Your task to perform on an android device: Open Amazon Image 0: 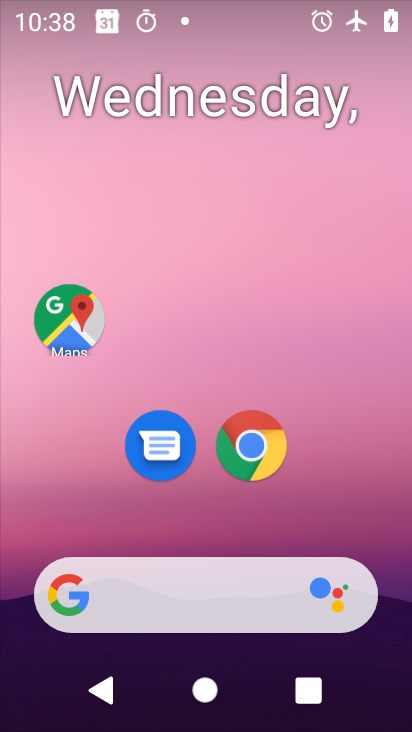
Step 0: drag from (319, 530) to (331, 15)
Your task to perform on an android device: Open Amazon Image 1: 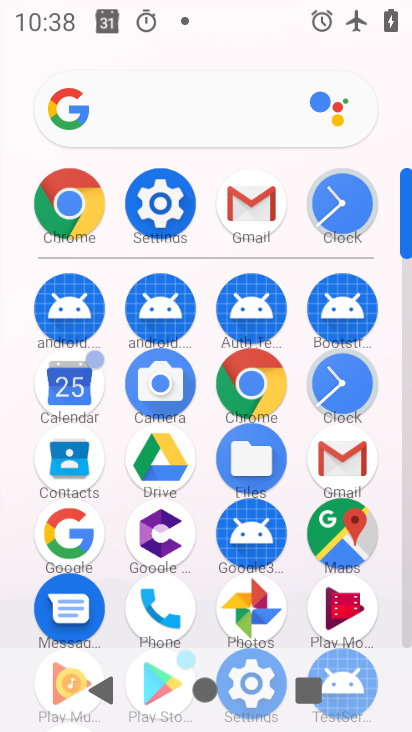
Step 1: click (261, 383)
Your task to perform on an android device: Open Amazon Image 2: 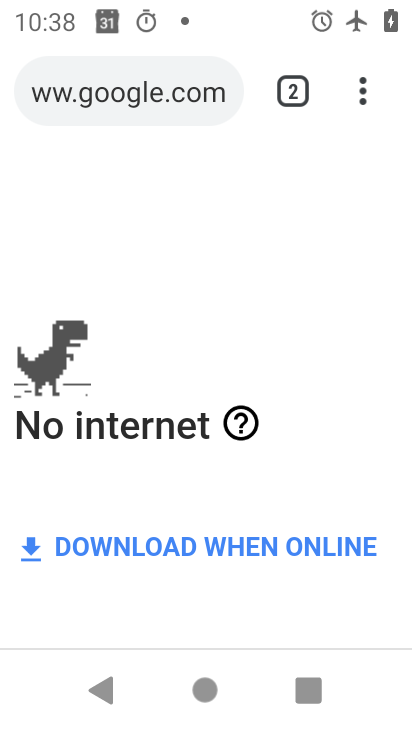
Step 2: click (143, 91)
Your task to perform on an android device: Open Amazon Image 3: 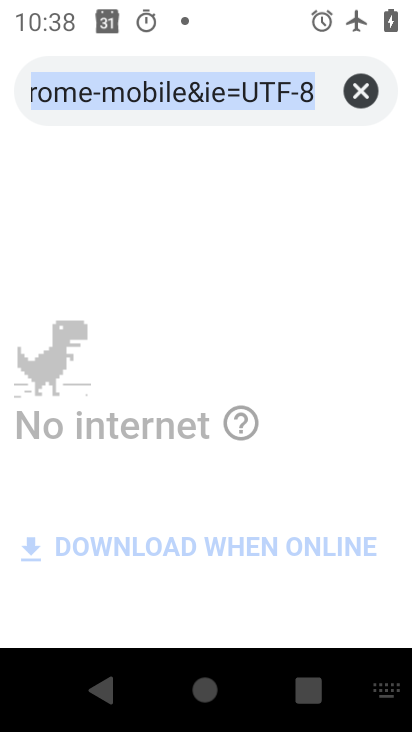
Step 3: click (377, 85)
Your task to perform on an android device: Open Amazon Image 4: 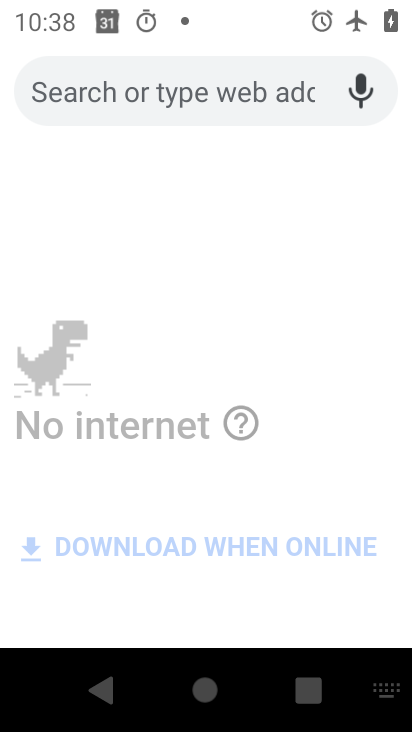
Step 4: type "amazon"
Your task to perform on an android device: Open Amazon Image 5: 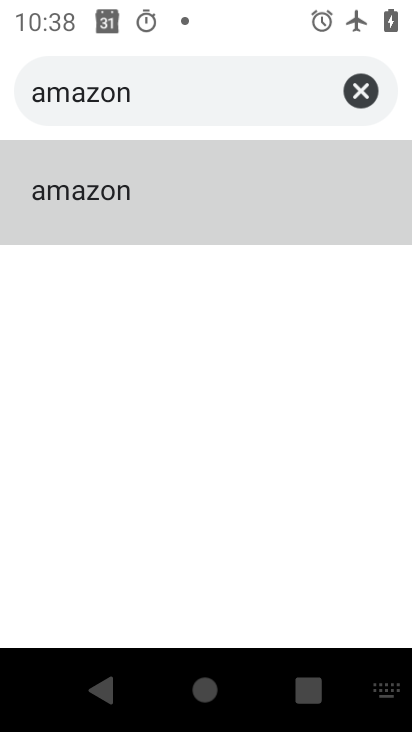
Step 5: click (85, 215)
Your task to perform on an android device: Open Amazon Image 6: 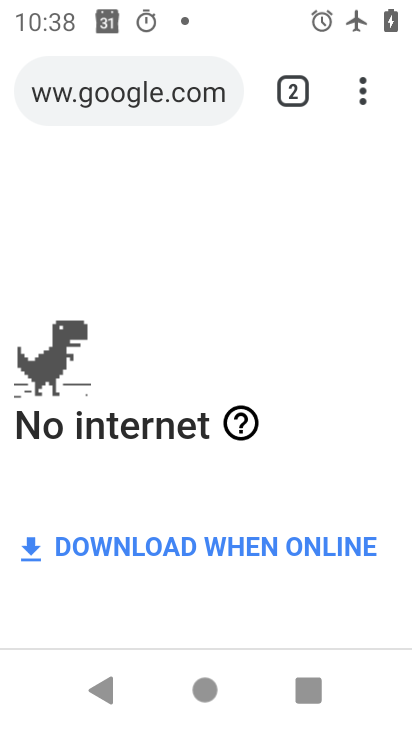
Step 6: task complete